Your task to perform on an android device: Search for pizza restaurants on Maps Image 0: 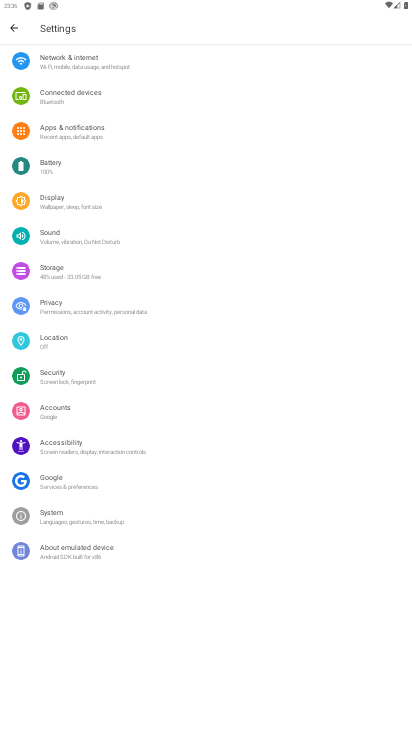
Step 0: press home button
Your task to perform on an android device: Search for pizza restaurants on Maps Image 1: 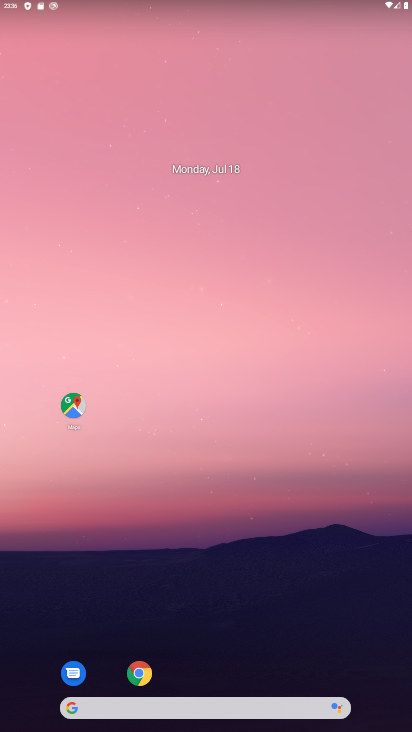
Step 1: drag from (184, 640) to (234, 196)
Your task to perform on an android device: Search for pizza restaurants on Maps Image 2: 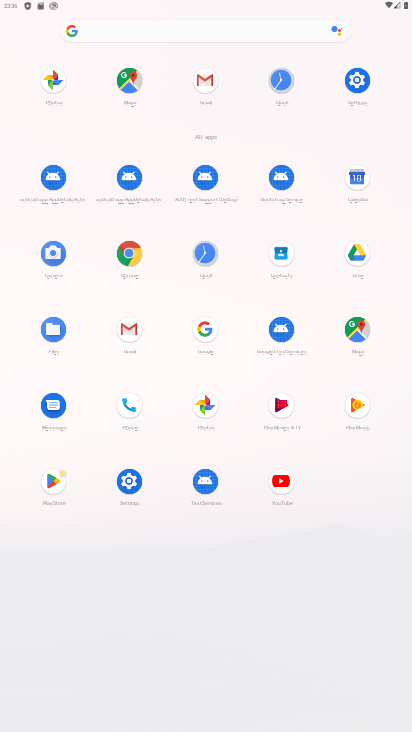
Step 2: click (363, 330)
Your task to perform on an android device: Search for pizza restaurants on Maps Image 3: 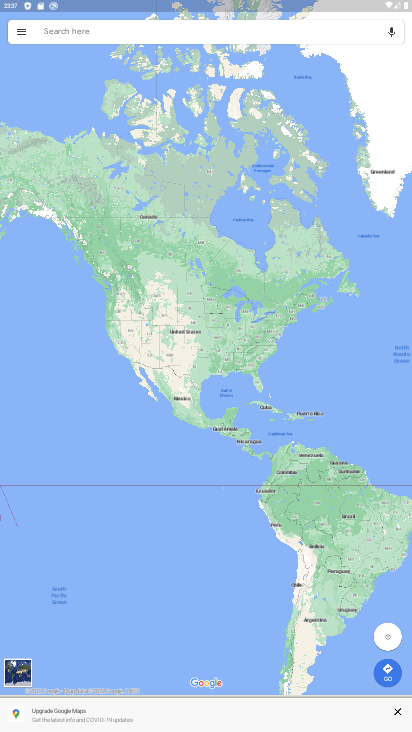
Step 3: click (131, 35)
Your task to perform on an android device: Search for pizza restaurants on Maps Image 4: 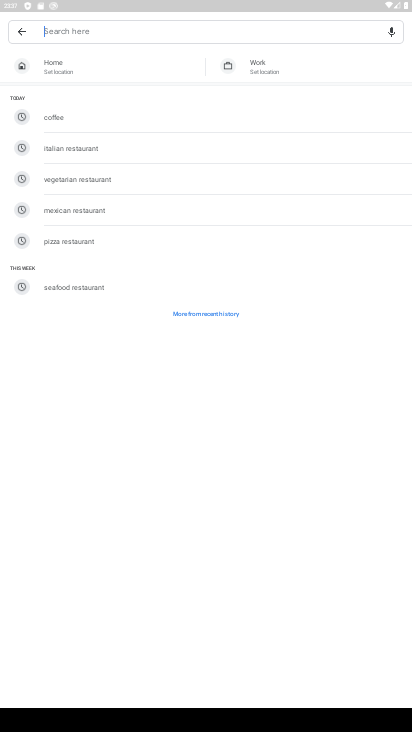
Step 4: click (101, 253)
Your task to perform on an android device: Search for pizza restaurants on Maps Image 5: 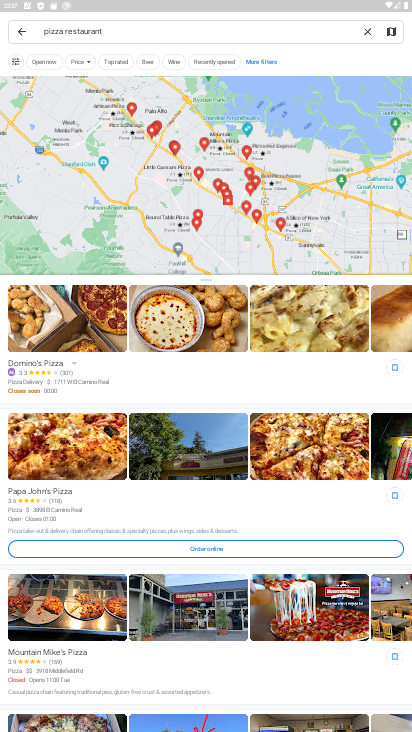
Step 5: task complete